Your task to perform on an android device: Open wifi settings Image 0: 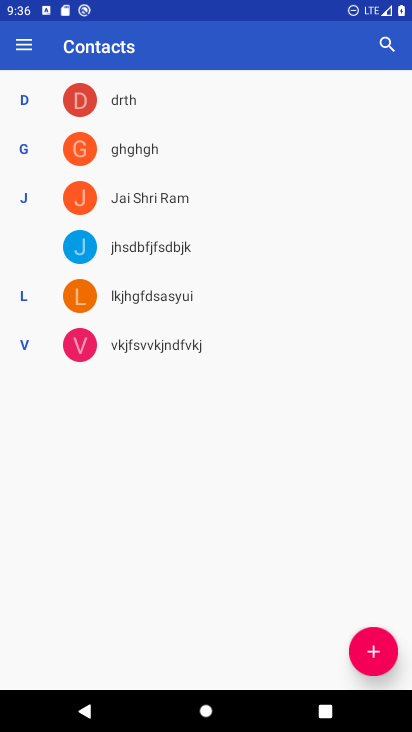
Step 0: press home button
Your task to perform on an android device: Open wifi settings Image 1: 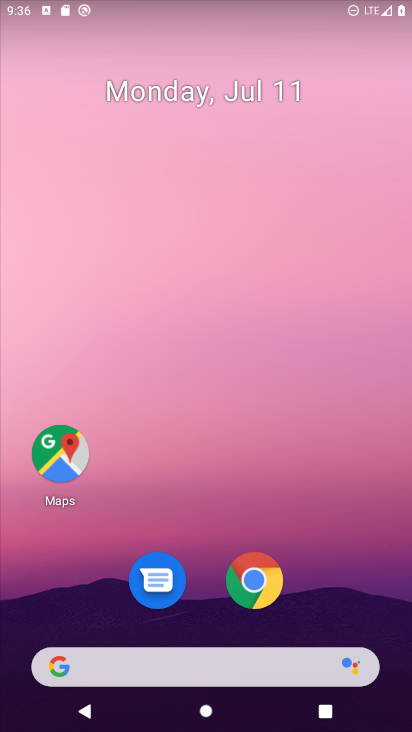
Step 1: drag from (226, 498) to (235, 39)
Your task to perform on an android device: Open wifi settings Image 2: 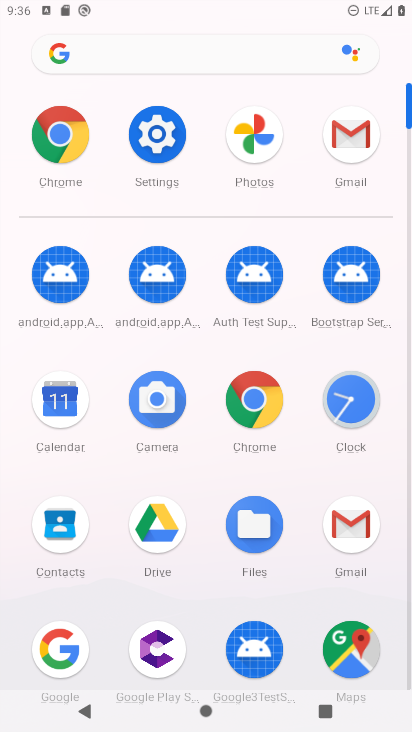
Step 2: click (149, 134)
Your task to perform on an android device: Open wifi settings Image 3: 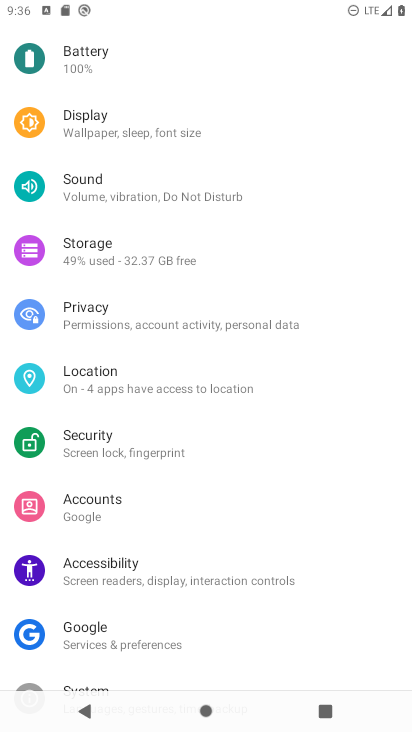
Step 3: drag from (257, 255) to (227, 542)
Your task to perform on an android device: Open wifi settings Image 4: 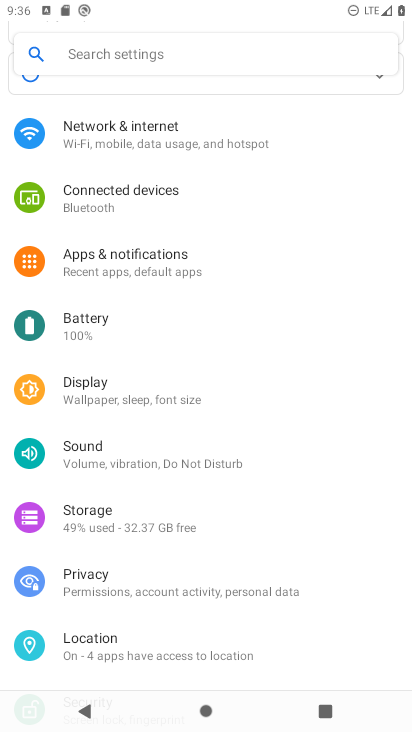
Step 4: click (185, 136)
Your task to perform on an android device: Open wifi settings Image 5: 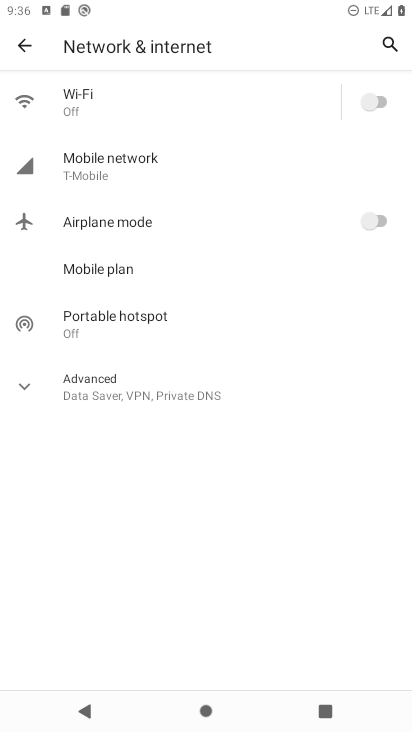
Step 5: click (121, 109)
Your task to perform on an android device: Open wifi settings Image 6: 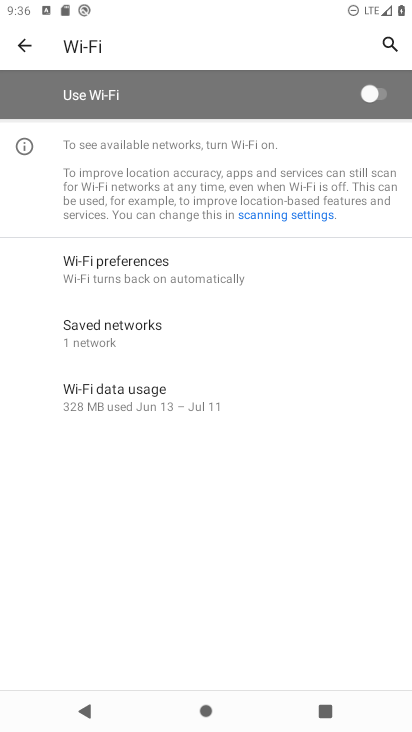
Step 6: task complete